Your task to perform on an android device: Go to location settings Image 0: 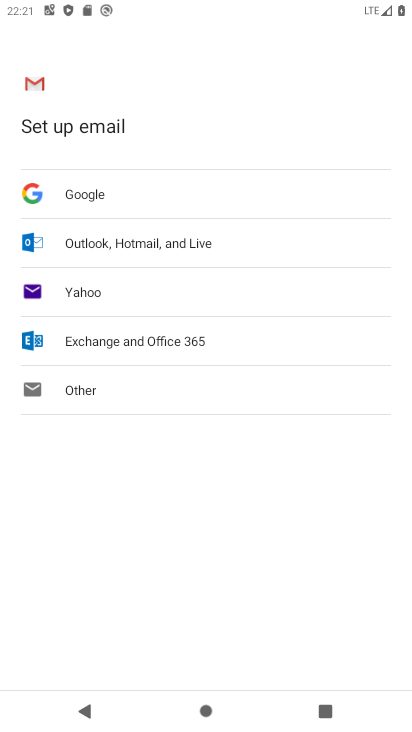
Step 0: press back button
Your task to perform on an android device: Go to location settings Image 1: 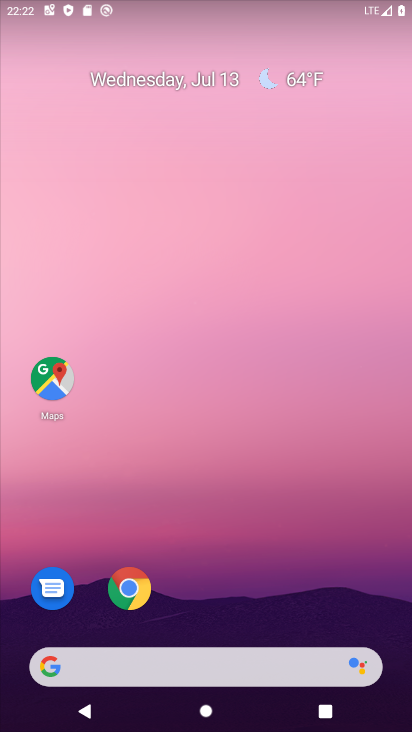
Step 1: drag from (205, 593) to (245, 317)
Your task to perform on an android device: Go to location settings Image 2: 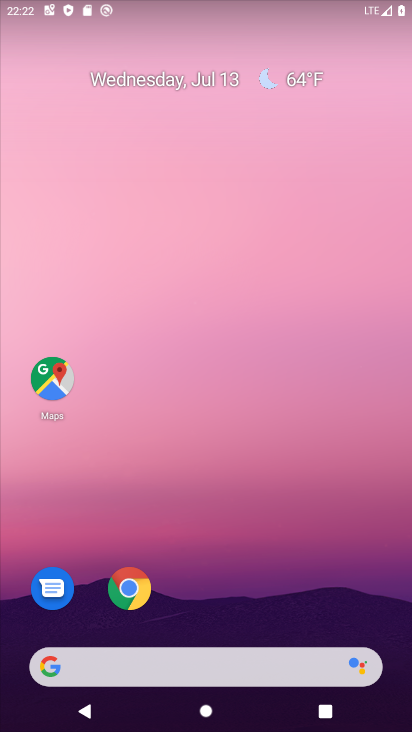
Step 2: drag from (177, 631) to (227, 79)
Your task to perform on an android device: Go to location settings Image 3: 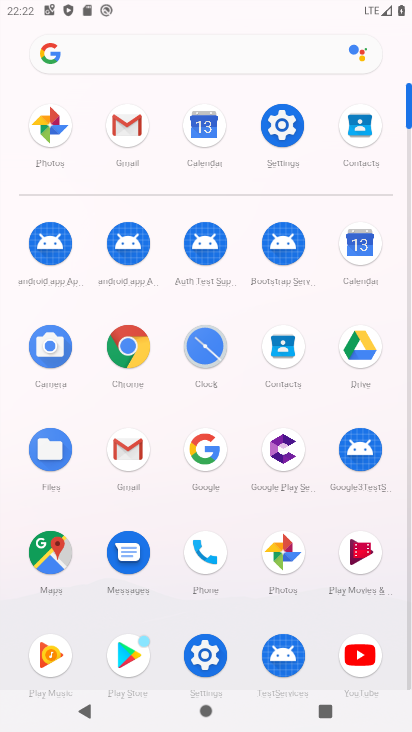
Step 3: click (285, 129)
Your task to perform on an android device: Go to location settings Image 4: 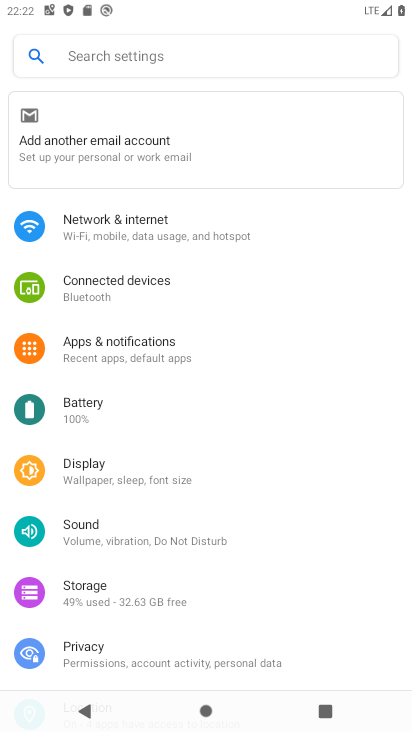
Step 4: drag from (132, 637) to (183, 125)
Your task to perform on an android device: Go to location settings Image 5: 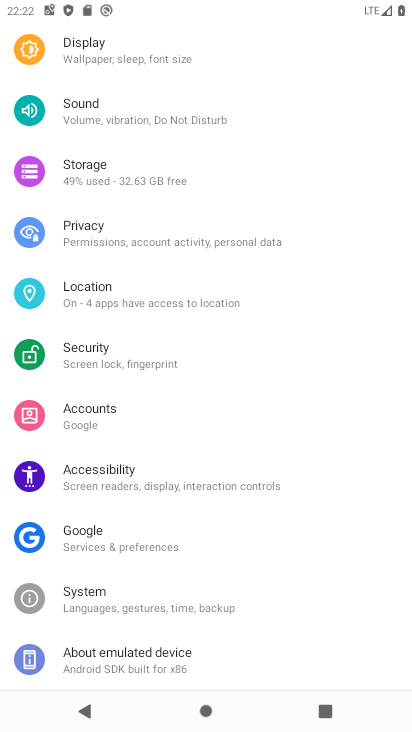
Step 5: click (131, 292)
Your task to perform on an android device: Go to location settings Image 6: 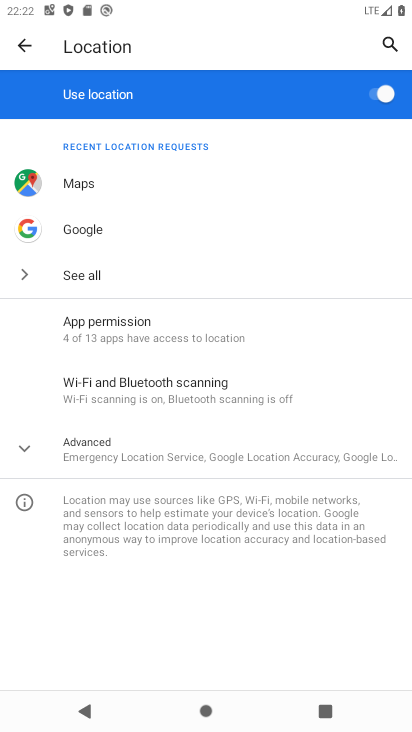
Step 6: task complete